Your task to perform on an android device: delete a single message in the gmail app Image 0: 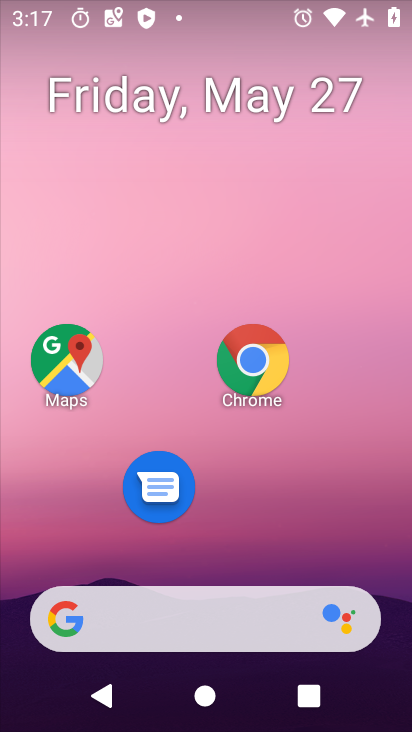
Step 0: drag from (235, 510) to (247, 70)
Your task to perform on an android device: delete a single message in the gmail app Image 1: 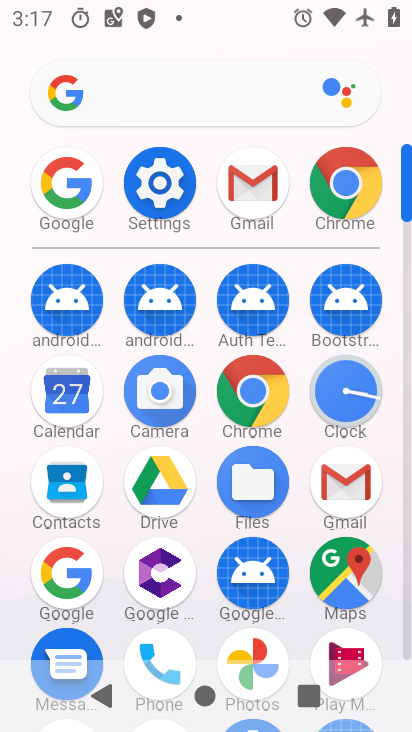
Step 1: click (256, 186)
Your task to perform on an android device: delete a single message in the gmail app Image 2: 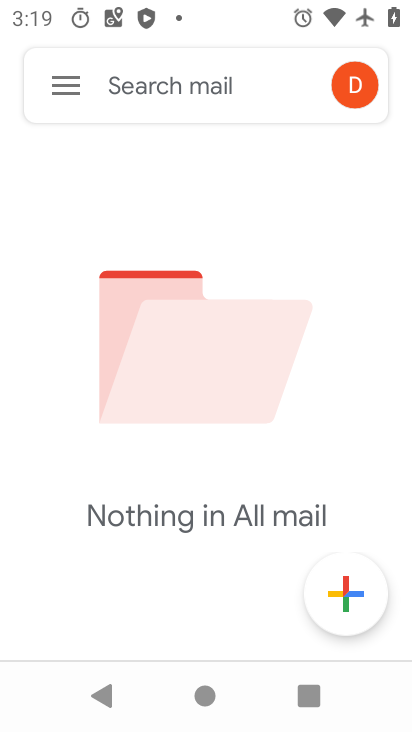
Step 2: task complete